Your task to perform on an android device: Open Yahoo.com Image 0: 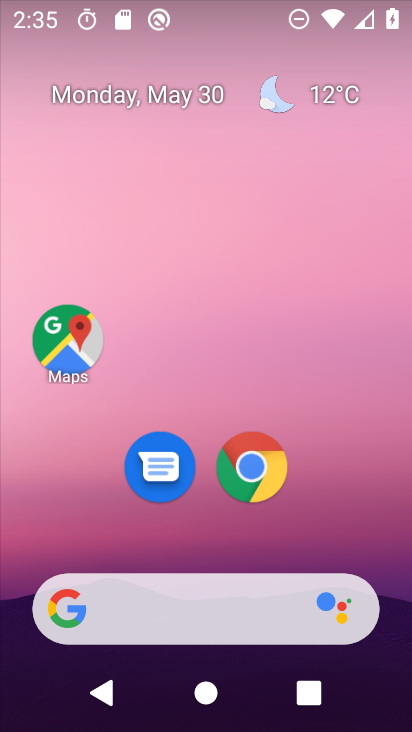
Step 0: click (248, 462)
Your task to perform on an android device: Open Yahoo.com Image 1: 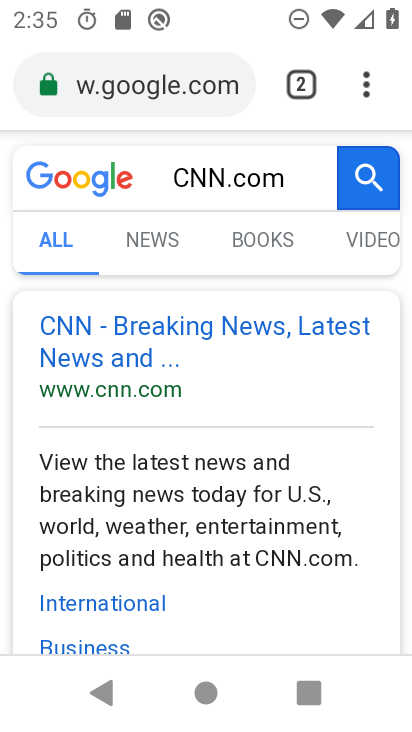
Step 1: click (241, 78)
Your task to perform on an android device: Open Yahoo.com Image 2: 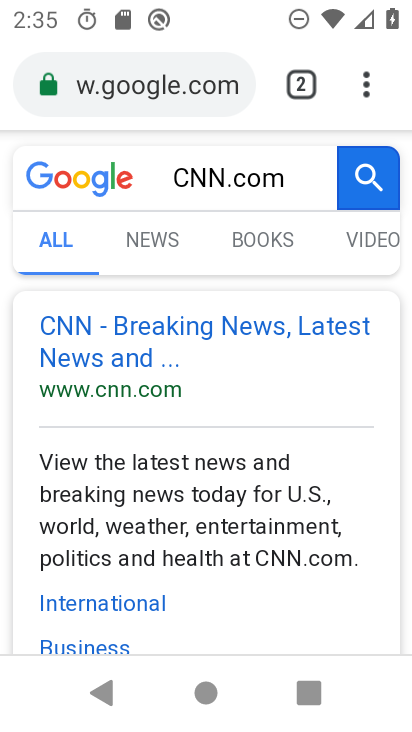
Step 2: click (239, 79)
Your task to perform on an android device: Open Yahoo.com Image 3: 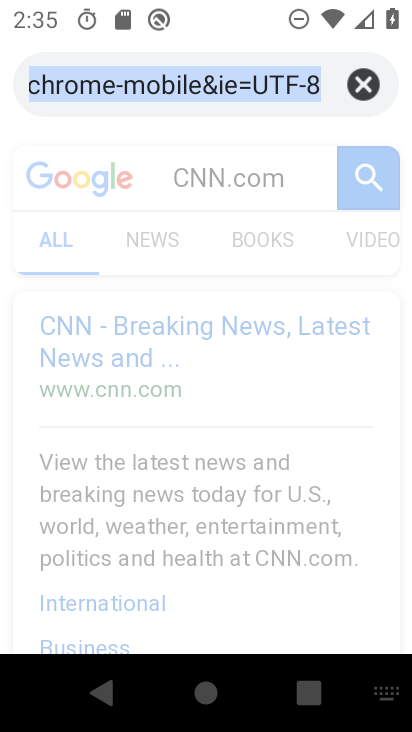
Step 3: click (368, 83)
Your task to perform on an android device: Open Yahoo.com Image 4: 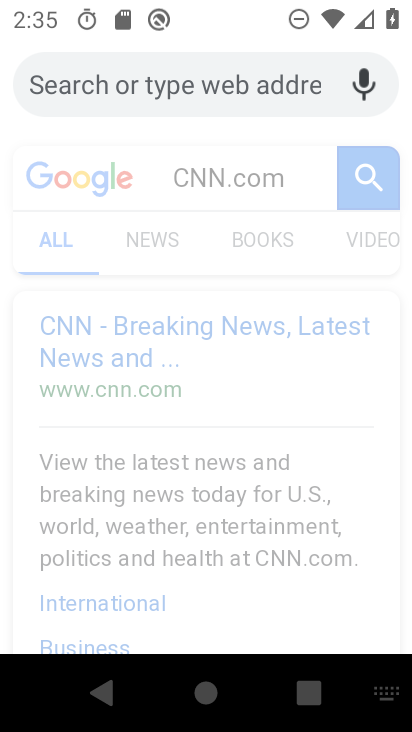
Step 4: type "Yahoo.com"
Your task to perform on an android device: Open Yahoo.com Image 5: 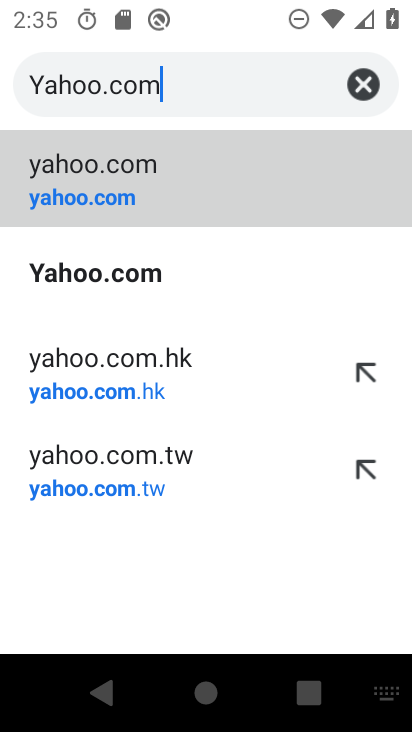
Step 5: click (103, 269)
Your task to perform on an android device: Open Yahoo.com Image 6: 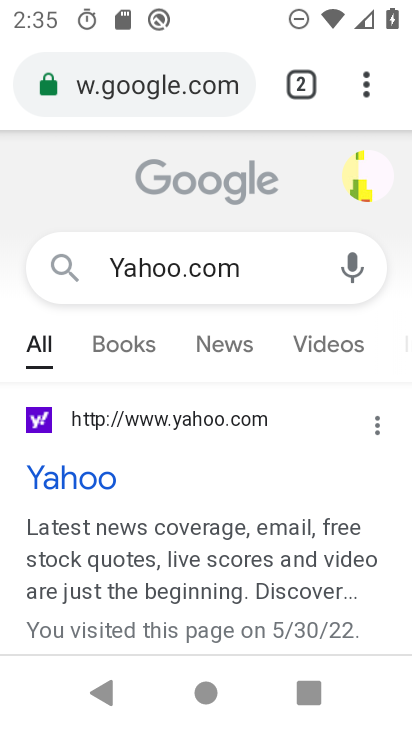
Step 6: task complete